Your task to perform on an android device: show emergency info Image 0: 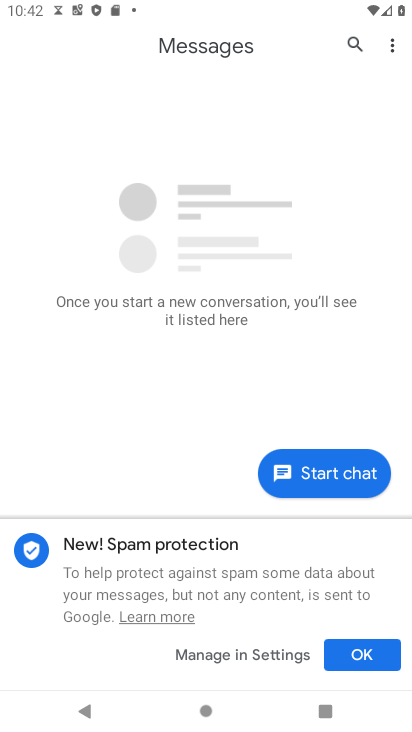
Step 0: press home button
Your task to perform on an android device: show emergency info Image 1: 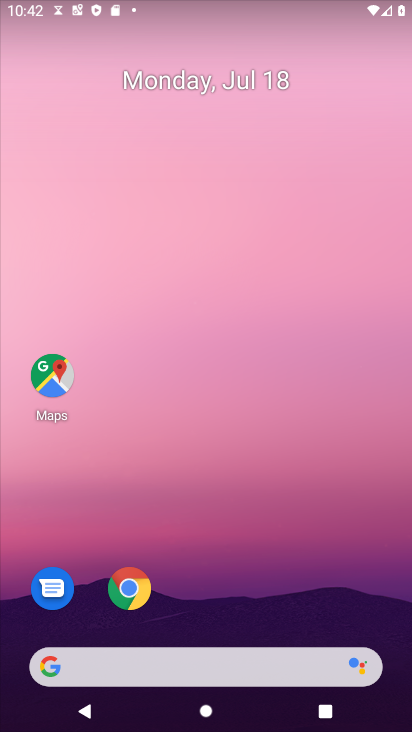
Step 1: drag from (248, 723) to (228, 138)
Your task to perform on an android device: show emergency info Image 2: 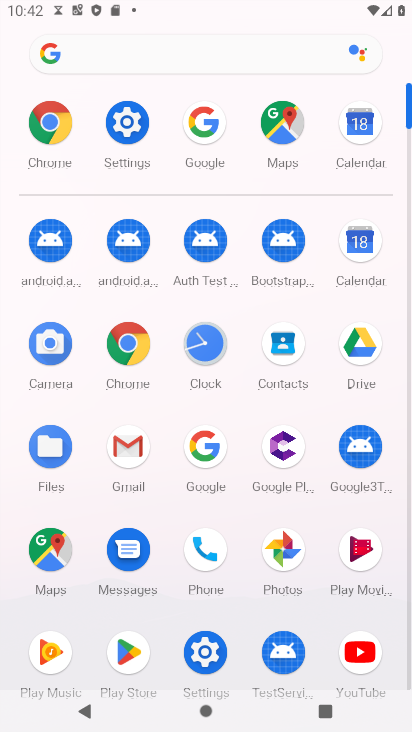
Step 2: click (125, 123)
Your task to perform on an android device: show emergency info Image 3: 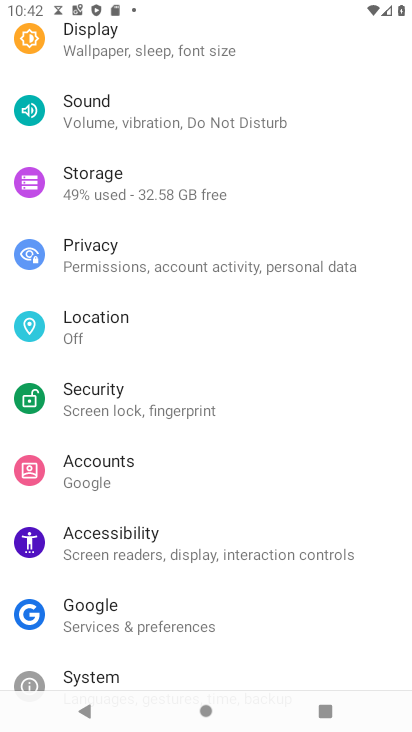
Step 3: drag from (150, 667) to (154, 387)
Your task to perform on an android device: show emergency info Image 4: 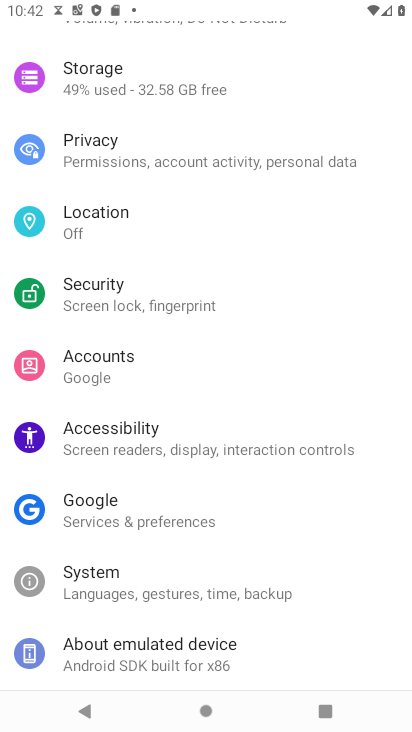
Step 4: click (164, 656)
Your task to perform on an android device: show emergency info Image 5: 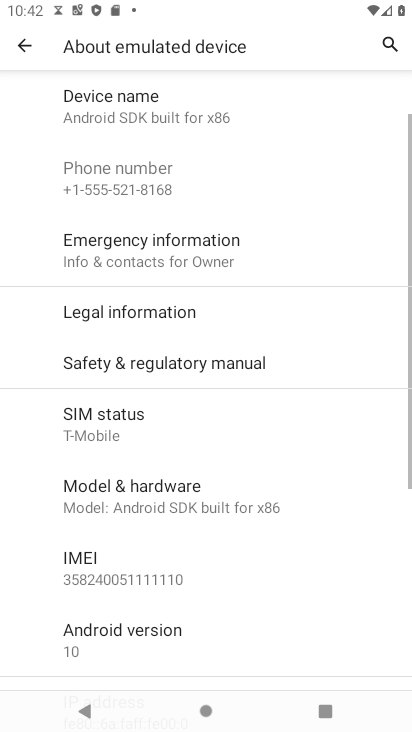
Step 5: click (184, 235)
Your task to perform on an android device: show emergency info Image 6: 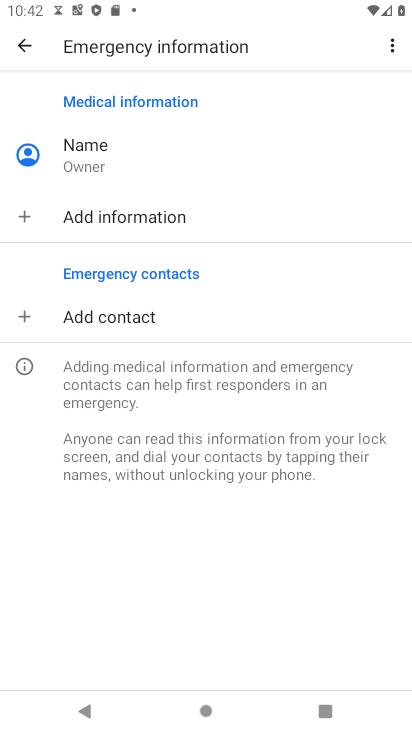
Step 6: task complete